Your task to perform on an android device: Search for seafood restaurants on Google Maps Image 0: 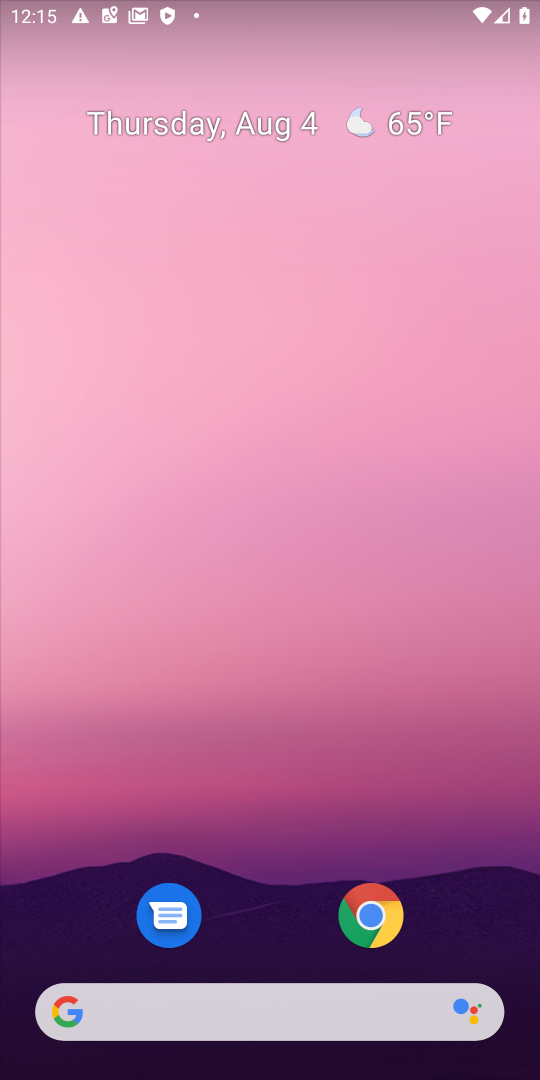
Step 0: drag from (309, 871) to (341, 335)
Your task to perform on an android device: Search for seafood restaurants on Google Maps Image 1: 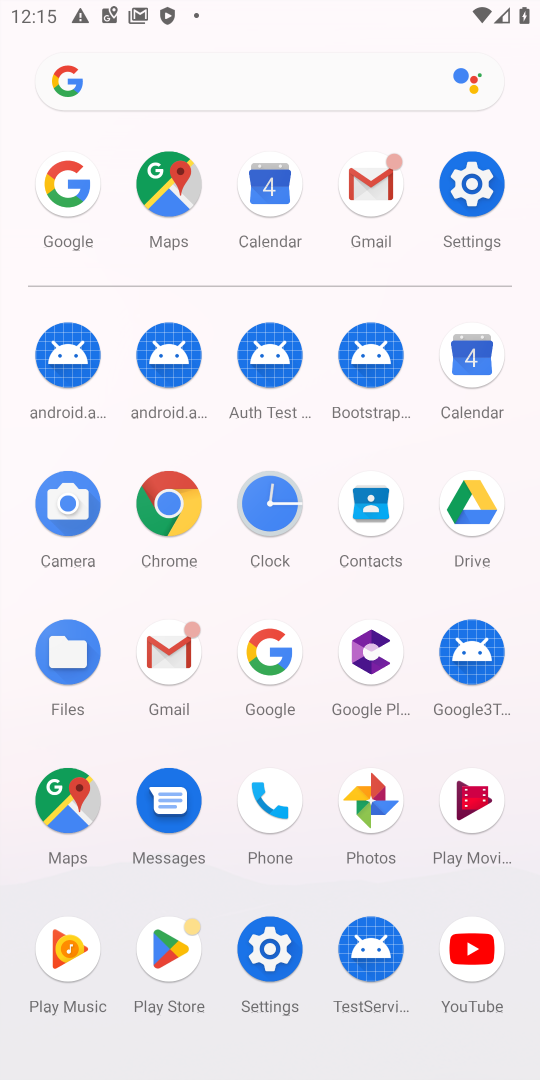
Step 1: click (161, 180)
Your task to perform on an android device: Search for seafood restaurants on Google Maps Image 2: 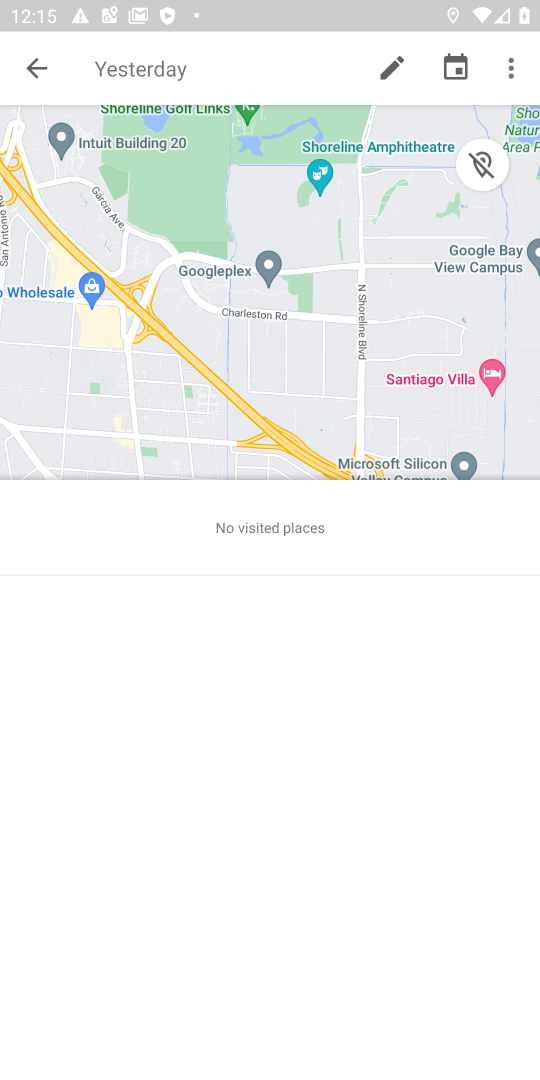
Step 2: click (48, 57)
Your task to perform on an android device: Search for seafood restaurants on Google Maps Image 3: 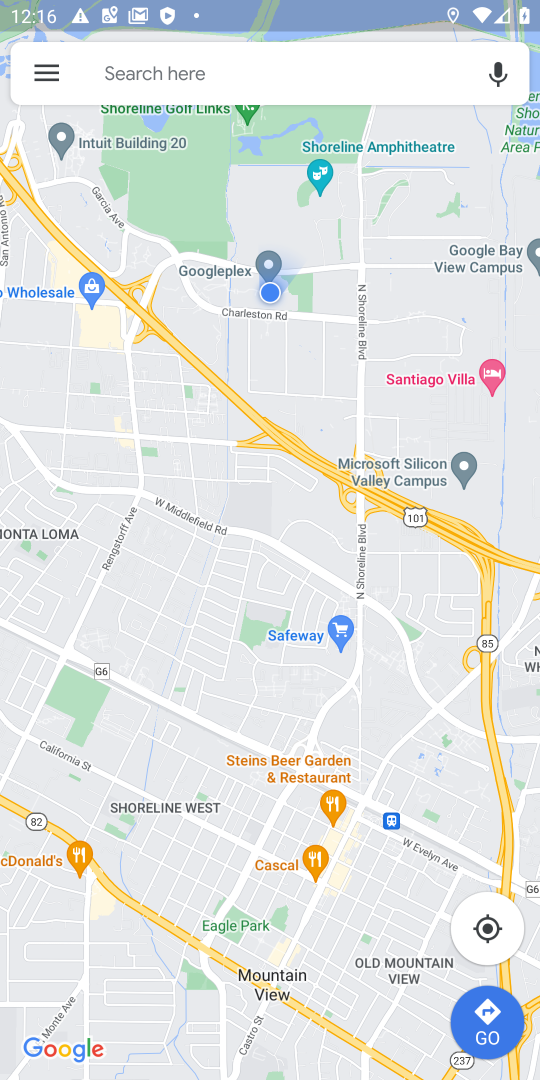
Step 3: click (215, 68)
Your task to perform on an android device: Search for seafood restaurants on Google Maps Image 4: 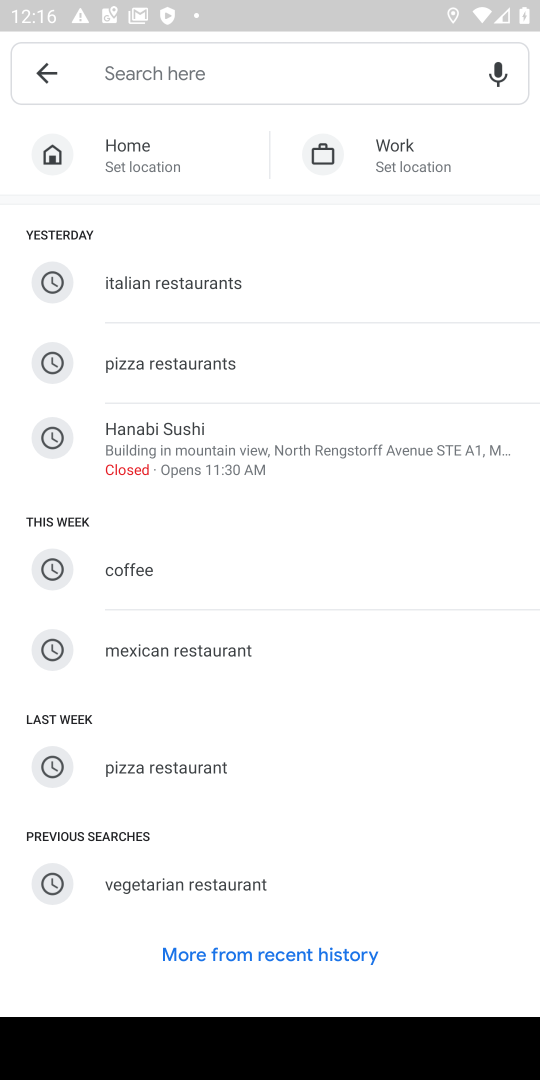
Step 4: type "seafood restaurants"
Your task to perform on an android device: Search for seafood restaurants on Google Maps Image 5: 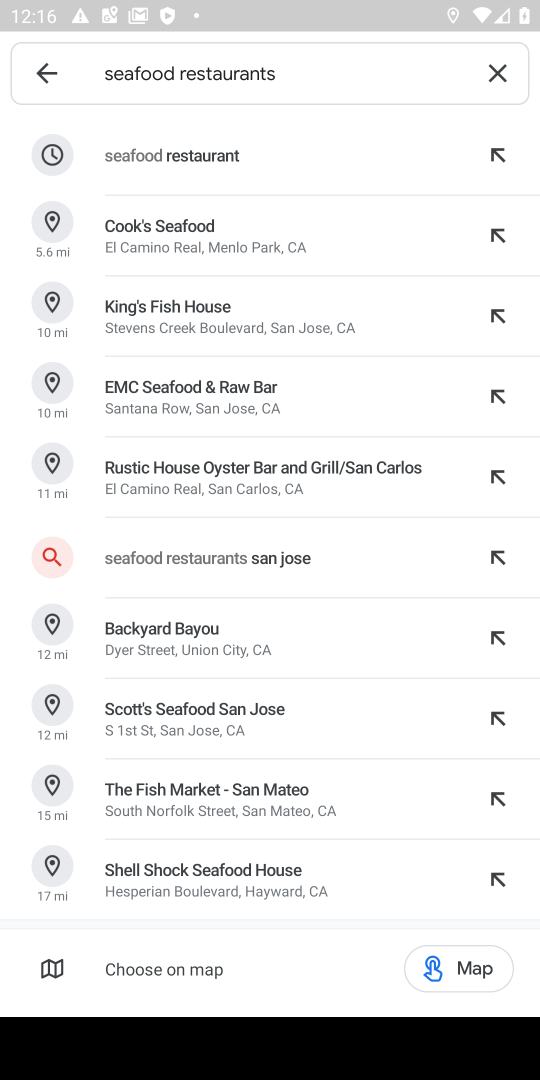
Step 5: click (157, 163)
Your task to perform on an android device: Search for seafood restaurants on Google Maps Image 6: 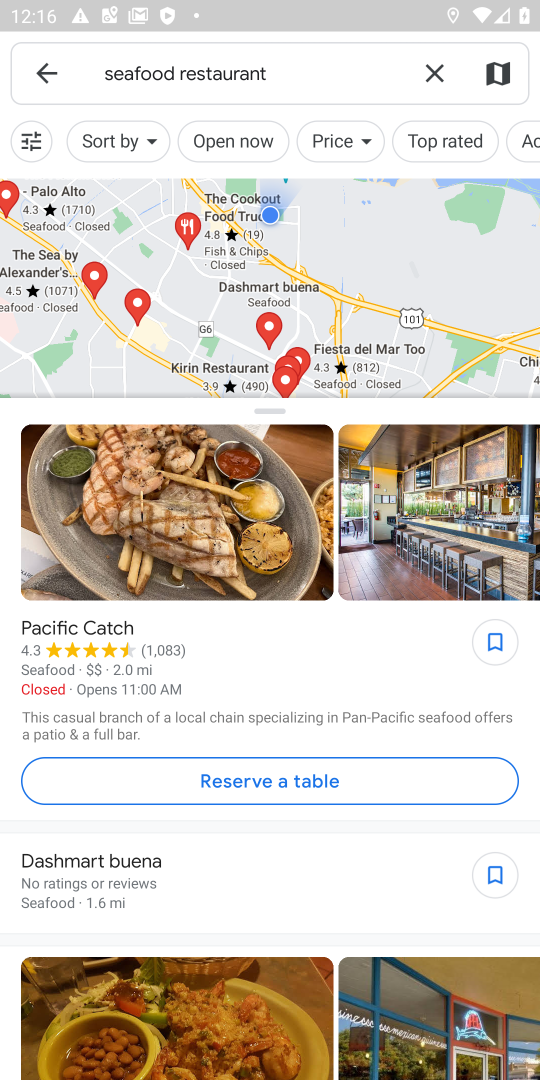
Step 6: task complete